Your task to perform on an android device: Clear the shopping cart on newegg. Image 0: 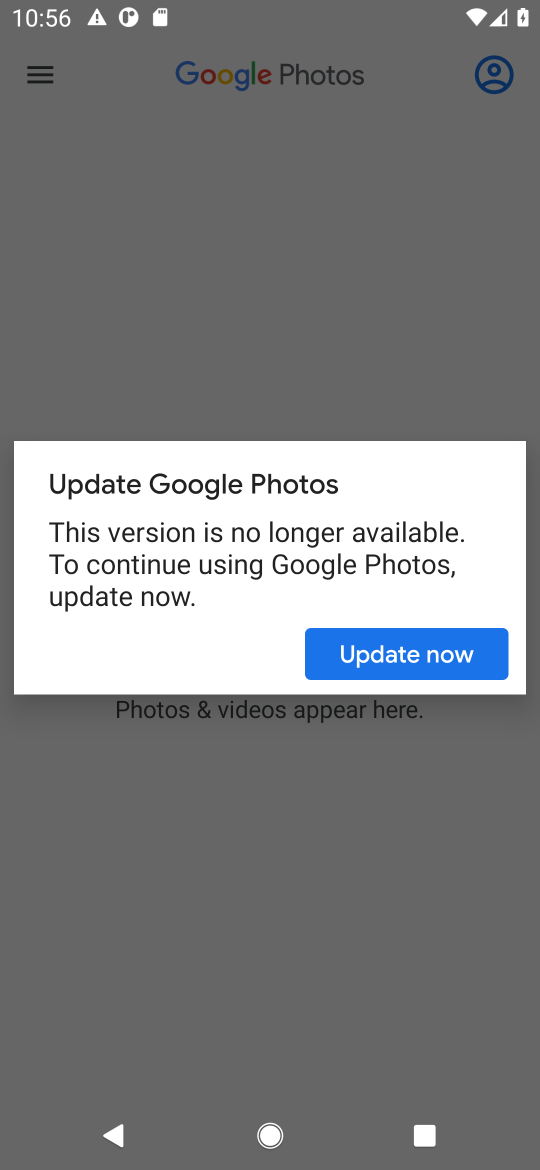
Step 0: press home button
Your task to perform on an android device: Clear the shopping cart on newegg. Image 1: 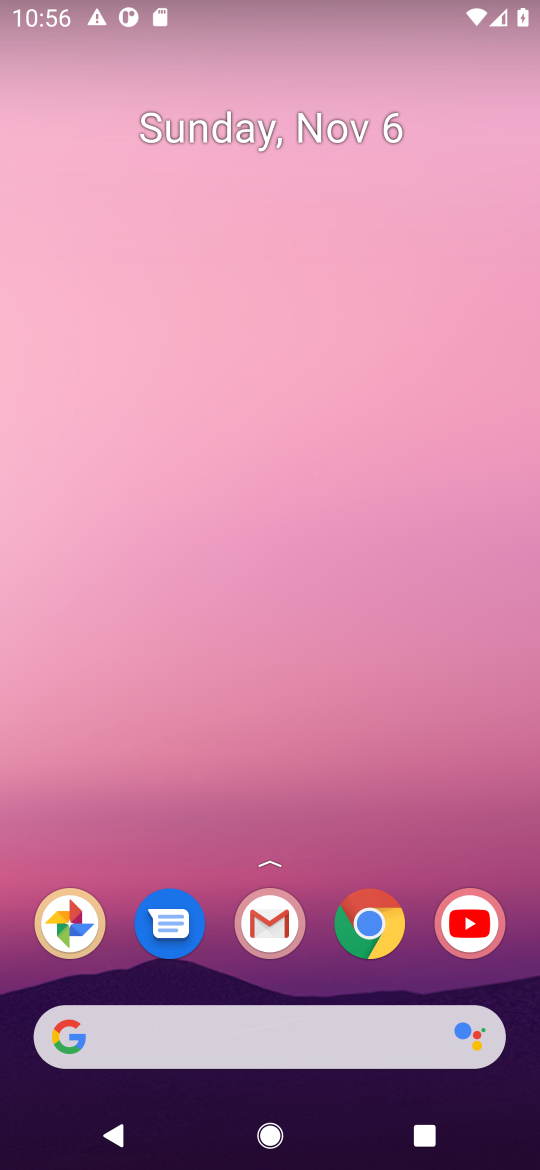
Step 1: click (366, 927)
Your task to perform on an android device: Clear the shopping cart on newegg. Image 2: 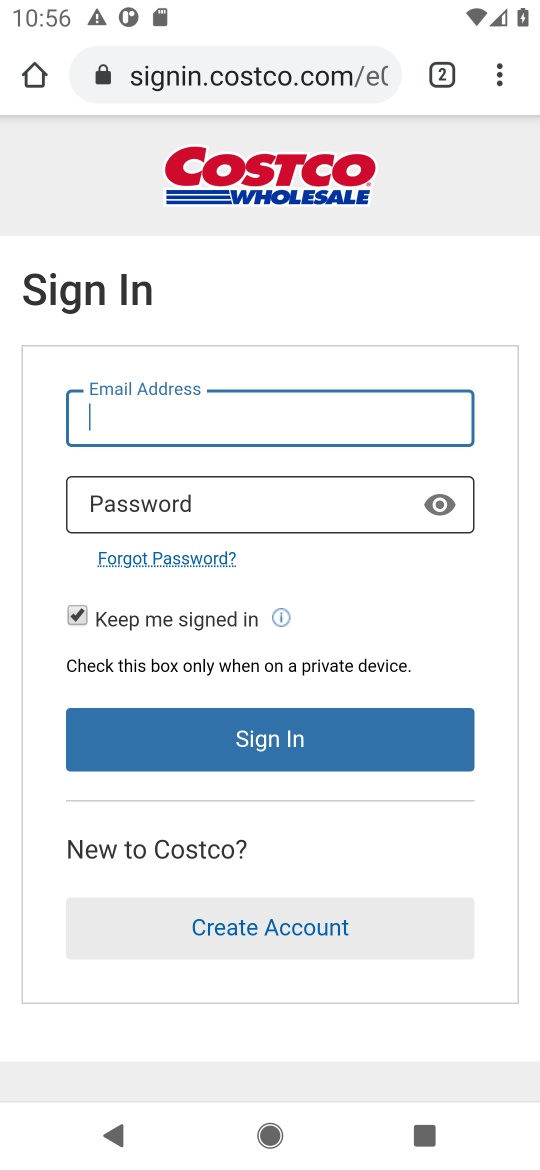
Step 2: click (262, 81)
Your task to perform on an android device: Clear the shopping cart on newegg. Image 3: 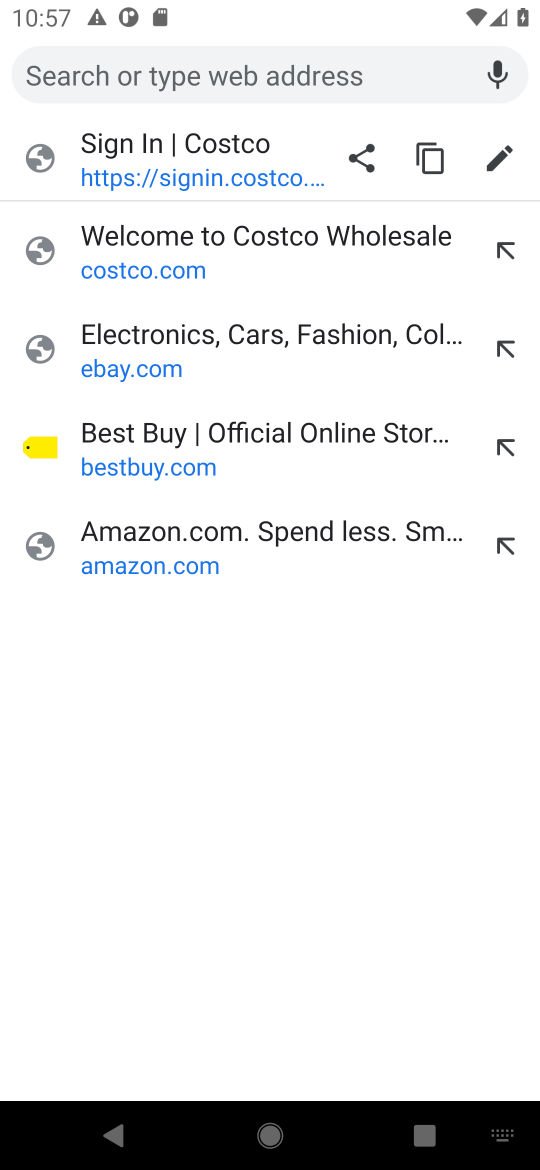
Step 3: type "newegg.com"
Your task to perform on an android device: Clear the shopping cart on newegg. Image 4: 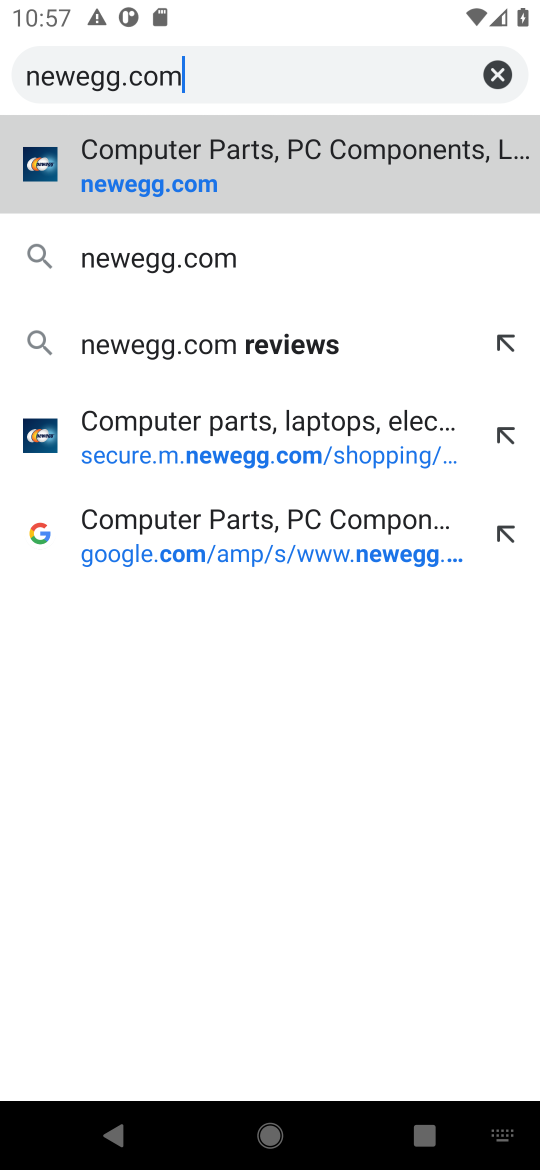
Step 4: click (148, 195)
Your task to perform on an android device: Clear the shopping cart on newegg. Image 5: 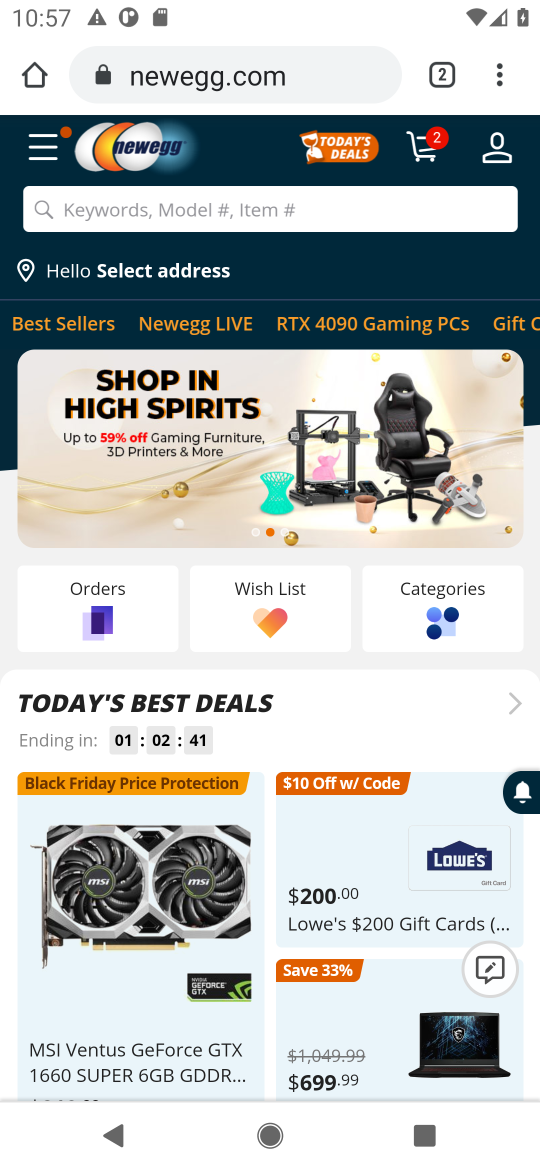
Step 5: click (429, 157)
Your task to perform on an android device: Clear the shopping cart on newegg. Image 6: 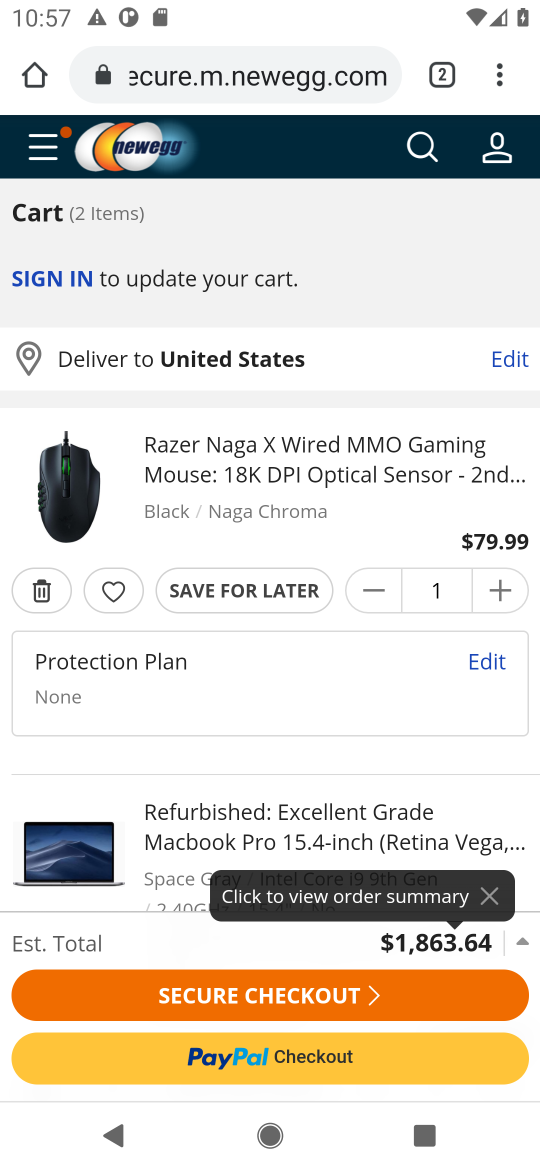
Step 6: click (43, 600)
Your task to perform on an android device: Clear the shopping cart on newegg. Image 7: 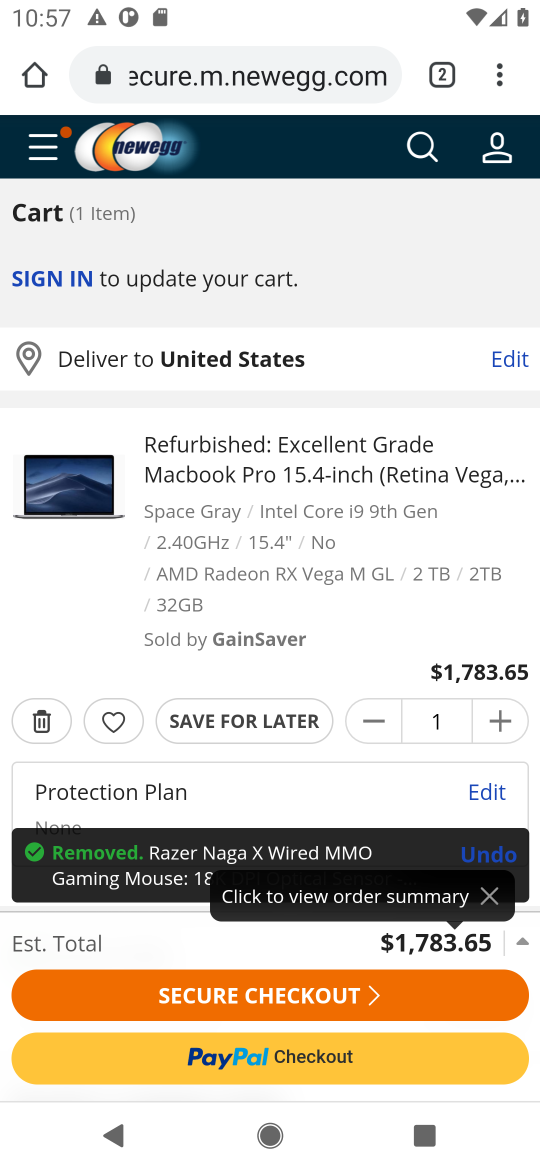
Step 7: click (38, 728)
Your task to perform on an android device: Clear the shopping cart on newegg. Image 8: 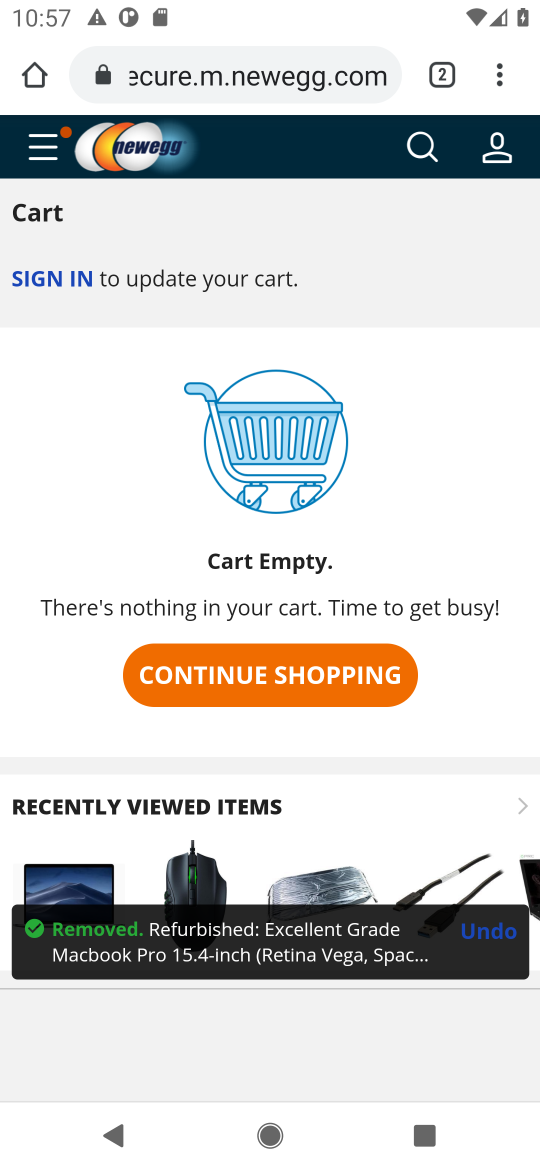
Step 8: task complete